Your task to perform on an android device: Show me productivity apps on the Play Store Image 0: 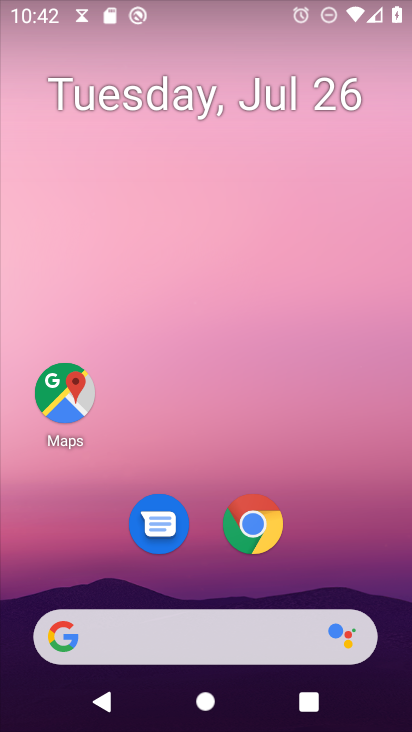
Step 0: press home button
Your task to perform on an android device: Show me productivity apps on the Play Store Image 1: 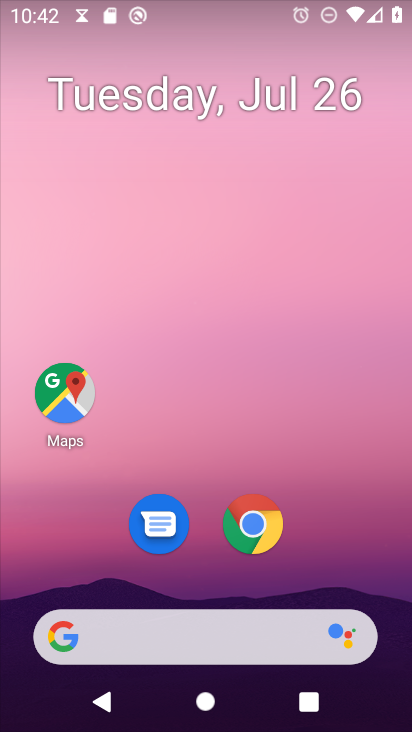
Step 1: drag from (165, 635) to (296, 58)
Your task to perform on an android device: Show me productivity apps on the Play Store Image 2: 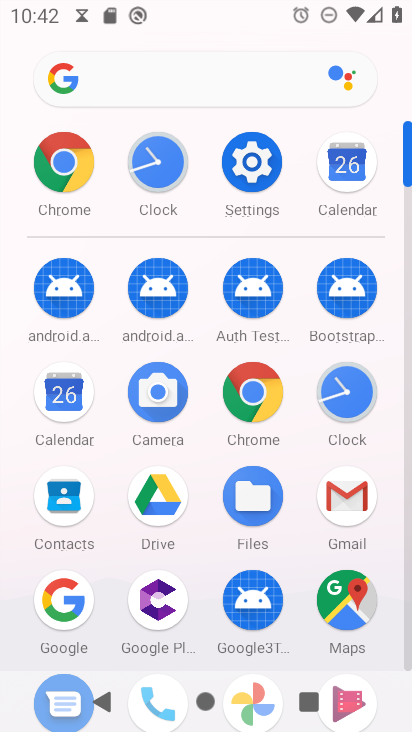
Step 2: drag from (208, 599) to (248, 94)
Your task to perform on an android device: Show me productivity apps on the Play Store Image 3: 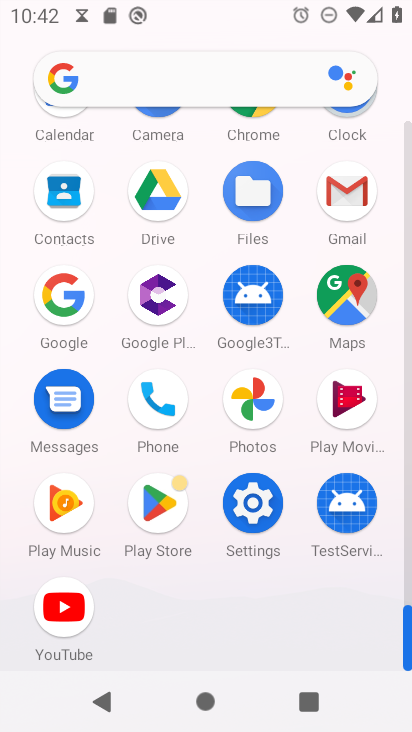
Step 3: click (162, 497)
Your task to perform on an android device: Show me productivity apps on the Play Store Image 4: 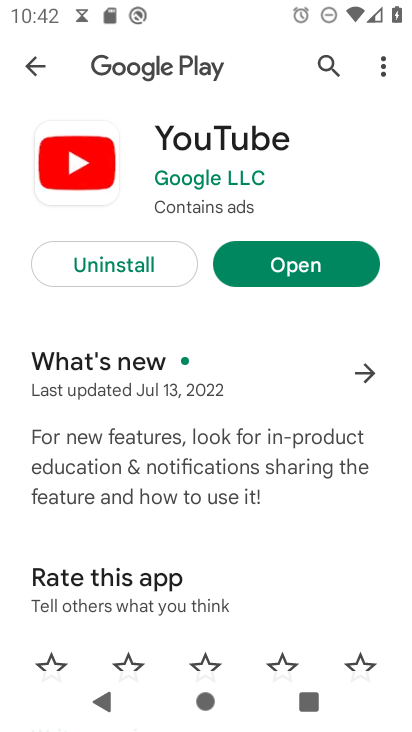
Step 4: click (37, 65)
Your task to perform on an android device: Show me productivity apps on the Play Store Image 5: 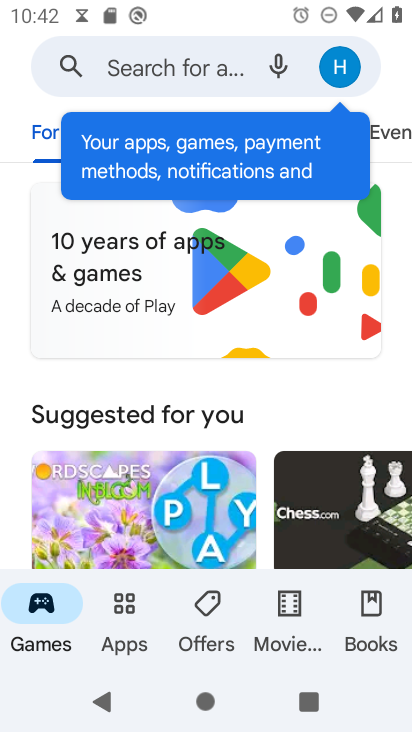
Step 5: click (122, 618)
Your task to perform on an android device: Show me productivity apps on the Play Store Image 6: 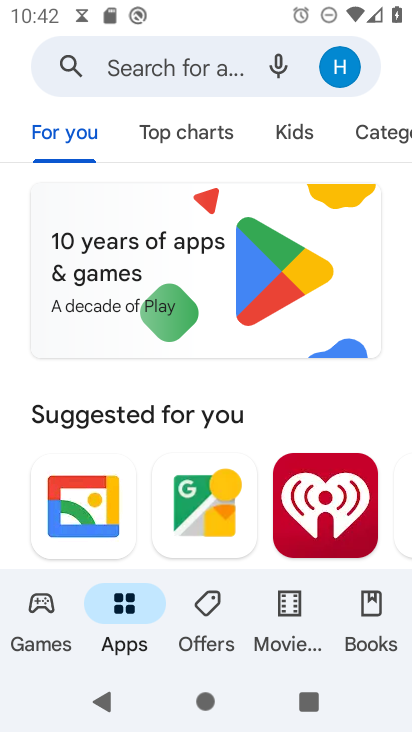
Step 6: click (384, 131)
Your task to perform on an android device: Show me productivity apps on the Play Store Image 7: 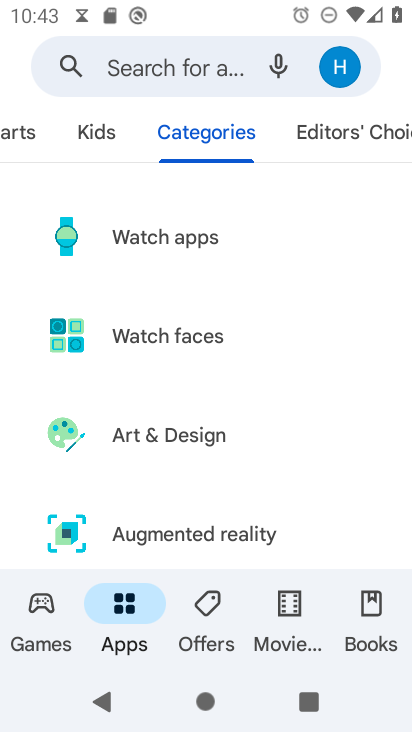
Step 7: drag from (304, 530) to (376, 15)
Your task to perform on an android device: Show me productivity apps on the Play Store Image 8: 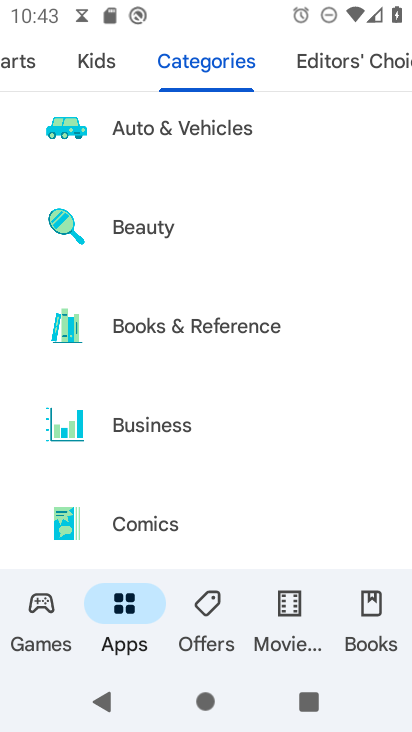
Step 8: drag from (297, 533) to (351, 80)
Your task to perform on an android device: Show me productivity apps on the Play Store Image 9: 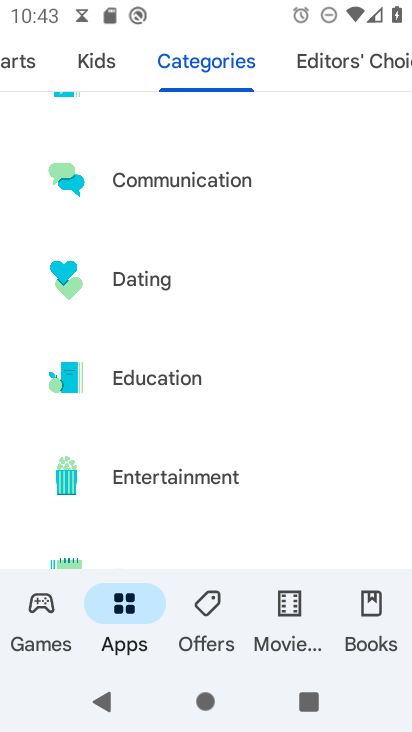
Step 9: drag from (284, 506) to (351, 44)
Your task to perform on an android device: Show me productivity apps on the Play Store Image 10: 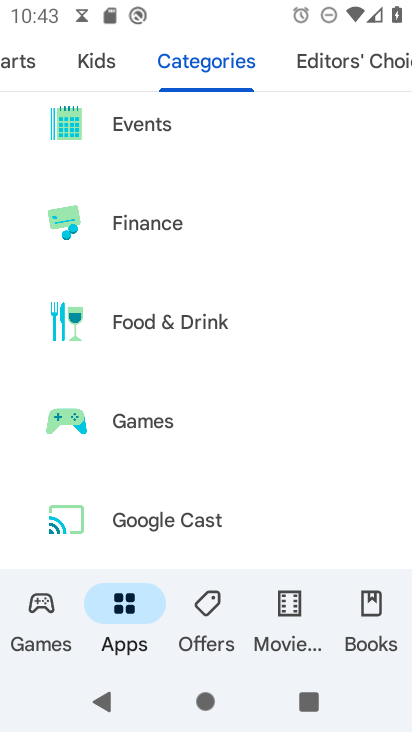
Step 10: drag from (284, 503) to (335, 13)
Your task to perform on an android device: Show me productivity apps on the Play Store Image 11: 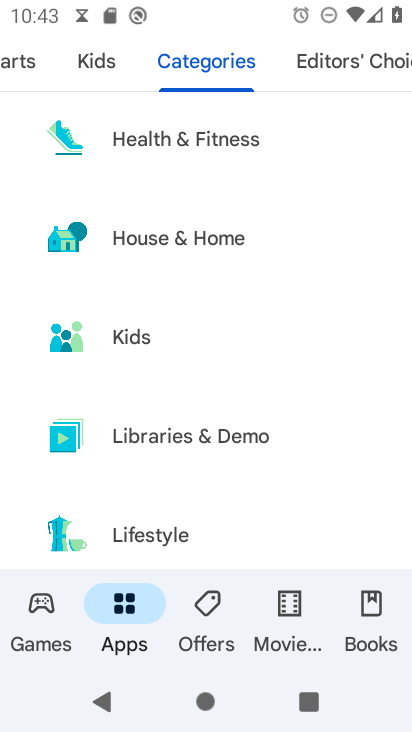
Step 11: drag from (294, 517) to (368, 82)
Your task to perform on an android device: Show me productivity apps on the Play Store Image 12: 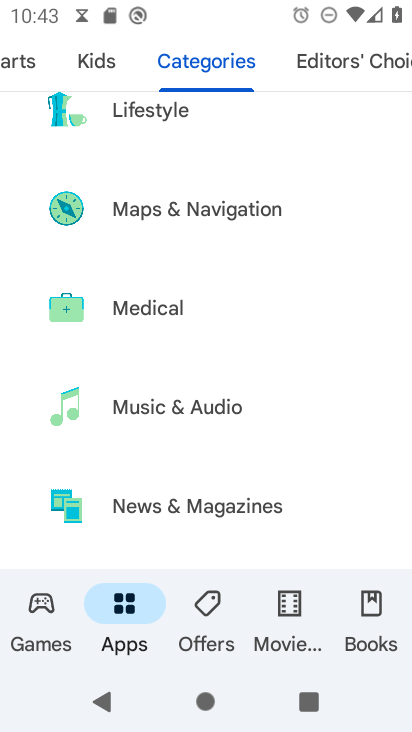
Step 12: drag from (332, 529) to (404, 138)
Your task to perform on an android device: Show me productivity apps on the Play Store Image 13: 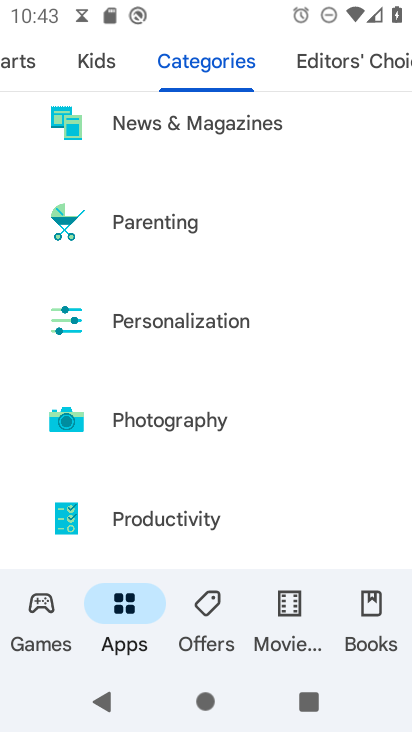
Step 13: click (204, 516)
Your task to perform on an android device: Show me productivity apps on the Play Store Image 14: 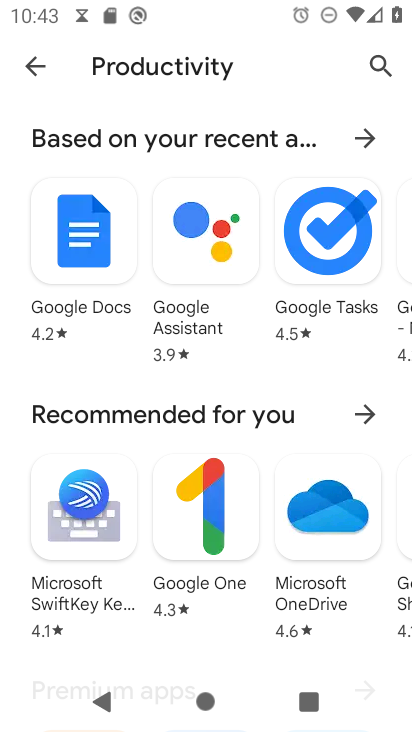
Step 14: task complete